Your task to perform on an android device: open wifi settings Image 0: 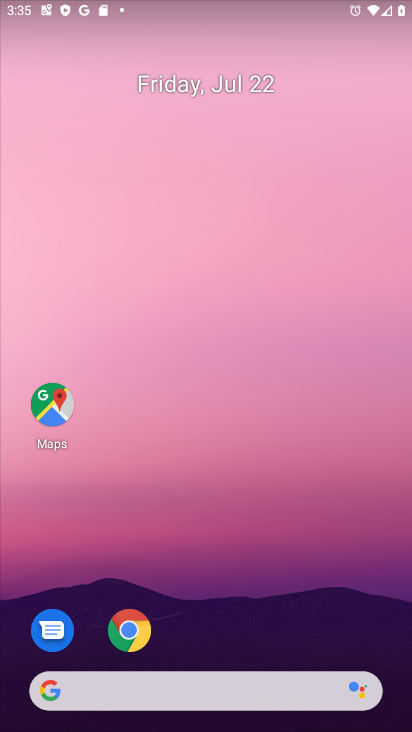
Step 0: drag from (224, 682) to (209, 153)
Your task to perform on an android device: open wifi settings Image 1: 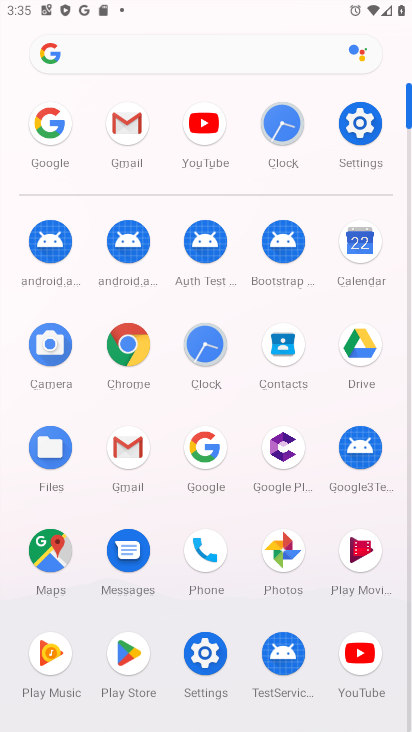
Step 1: click (370, 123)
Your task to perform on an android device: open wifi settings Image 2: 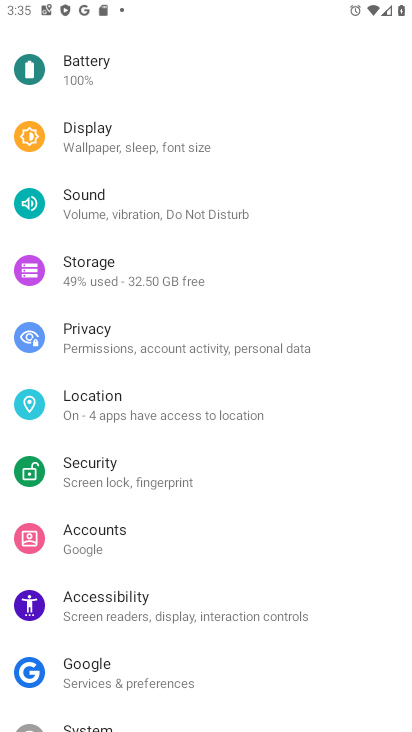
Step 2: drag from (120, 110) to (118, 671)
Your task to perform on an android device: open wifi settings Image 3: 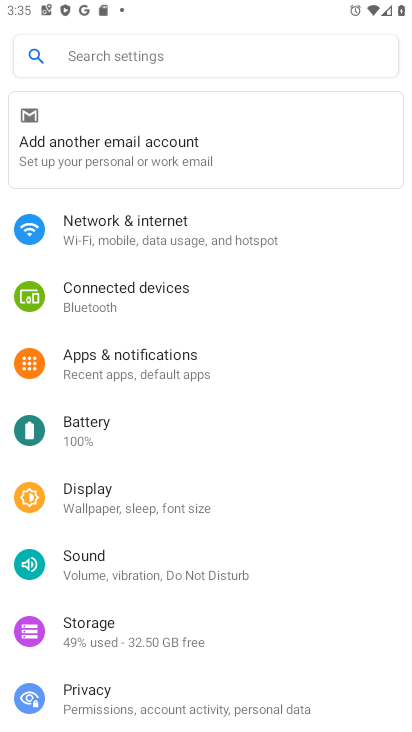
Step 3: click (112, 231)
Your task to perform on an android device: open wifi settings Image 4: 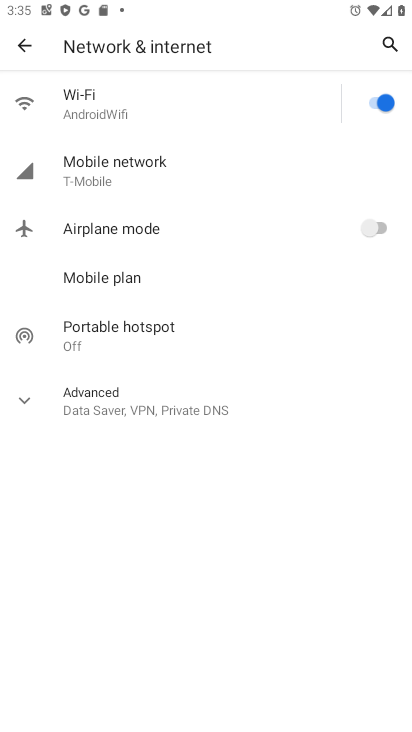
Step 4: click (93, 105)
Your task to perform on an android device: open wifi settings Image 5: 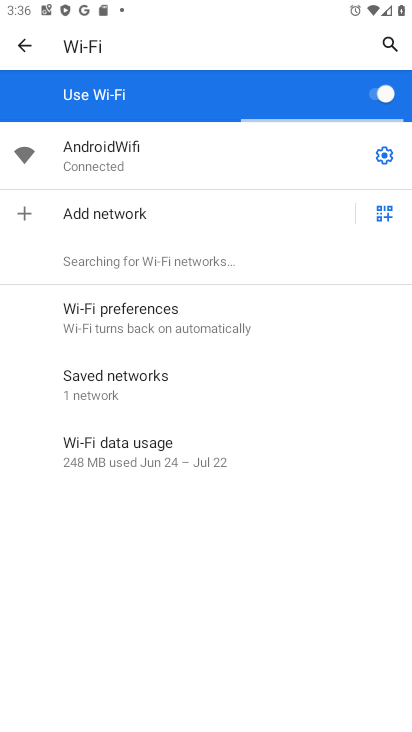
Step 5: task complete